Your task to perform on an android device: Show me the alarms in the clock app Image 0: 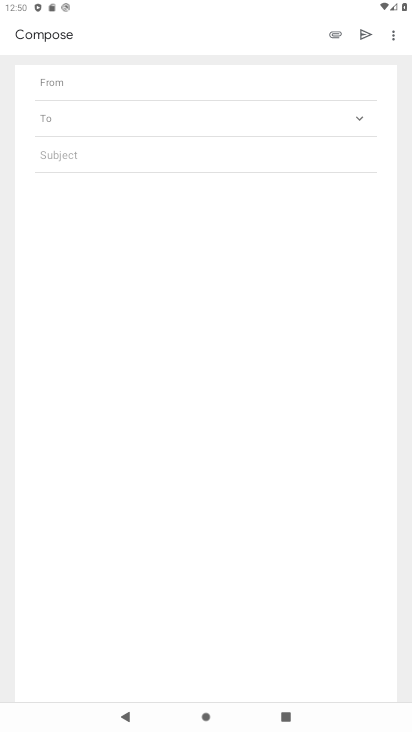
Step 0: drag from (0, 0) to (351, 647)
Your task to perform on an android device: Show me the alarms in the clock app Image 1: 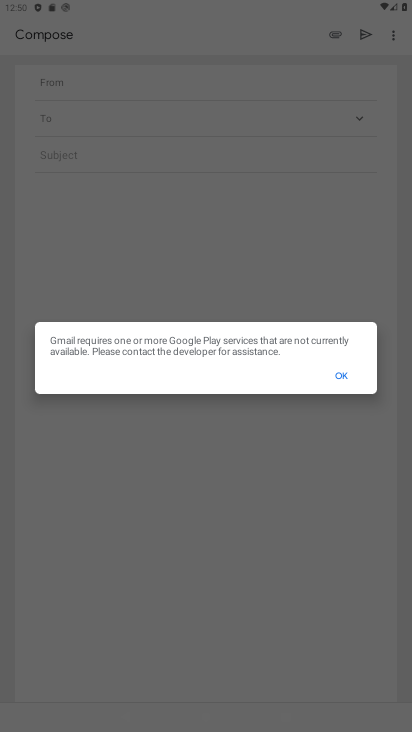
Step 1: drag from (220, 667) to (288, 347)
Your task to perform on an android device: Show me the alarms in the clock app Image 2: 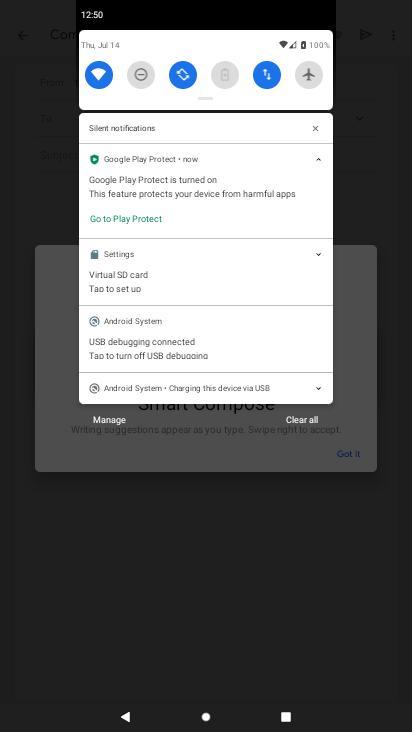
Step 2: press home button
Your task to perform on an android device: Show me the alarms in the clock app Image 3: 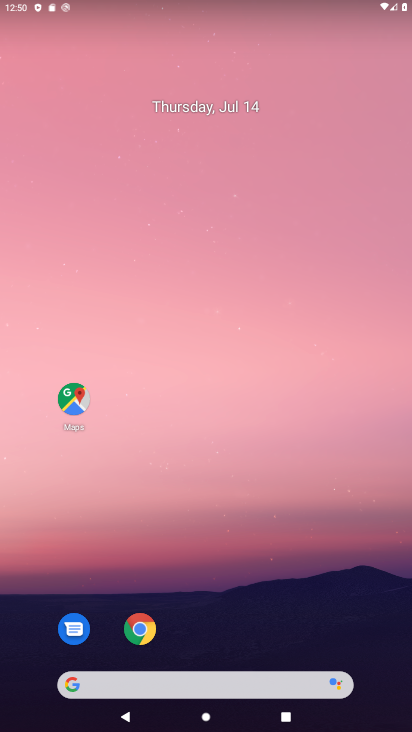
Step 3: drag from (184, 674) to (258, 234)
Your task to perform on an android device: Show me the alarms in the clock app Image 4: 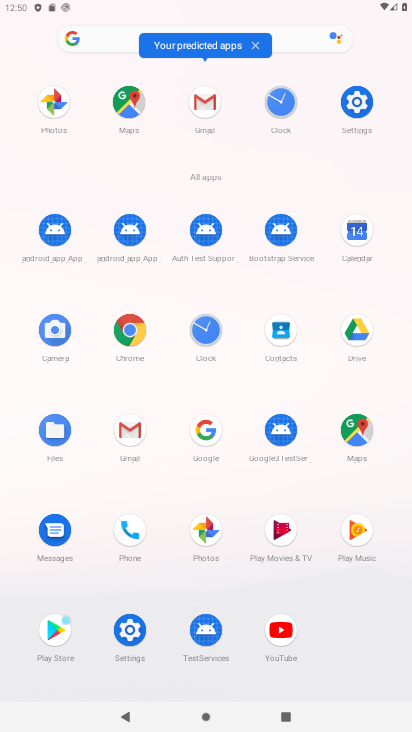
Step 4: drag from (235, 617) to (235, 446)
Your task to perform on an android device: Show me the alarms in the clock app Image 5: 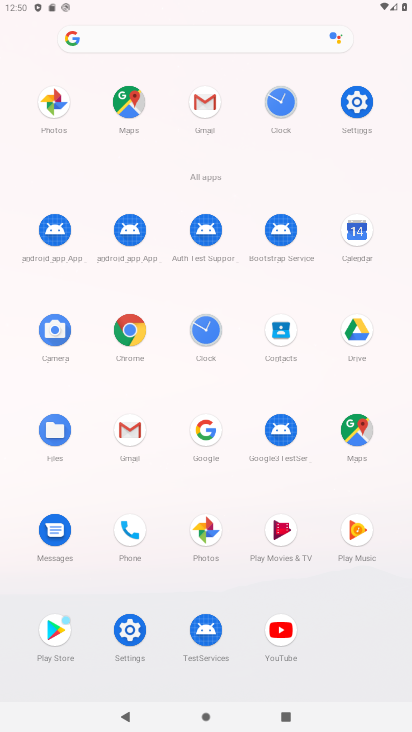
Step 5: drag from (172, 543) to (188, 318)
Your task to perform on an android device: Show me the alarms in the clock app Image 6: 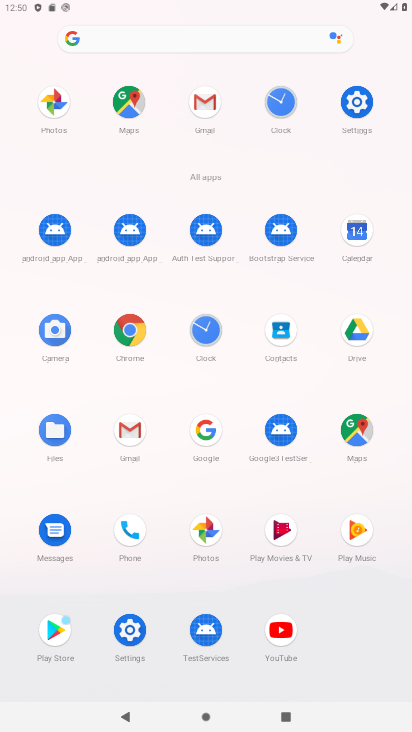
Step 6: drag from (182, 509) to (210, 443)
Your task to perform on an android device: Show me the alarms in the clock app Image 7: 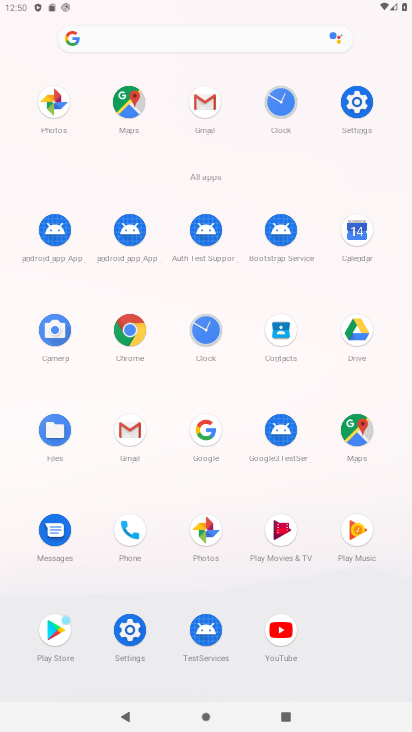
Step 7: drag from (241, 658) to (253, 433)
Your task to perform on an android device: Show me the alarms in the clock app Image 8: 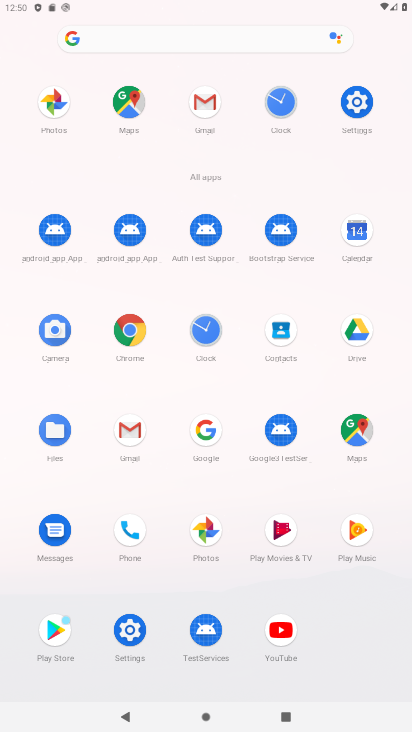
Step 8: click (200, 333)
Your task to perform on an android device: Show me the alarms in the clock app Image 9: 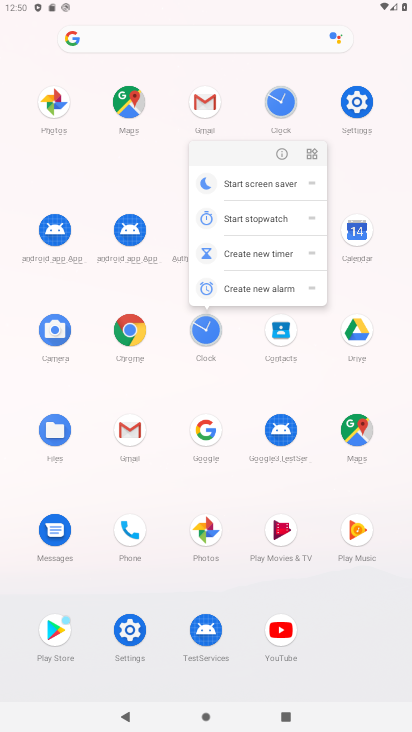
Step 9: click (284, 152)
Your task to perform on an android device: Show me the alarms in the clock app Image 10: 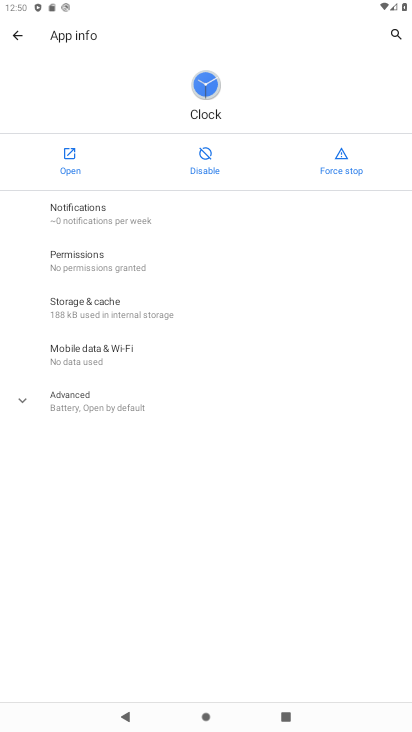
Step 10: click (70, 164)
Your task to perform on an android device: Show me the alarms in the clock app Image 11: 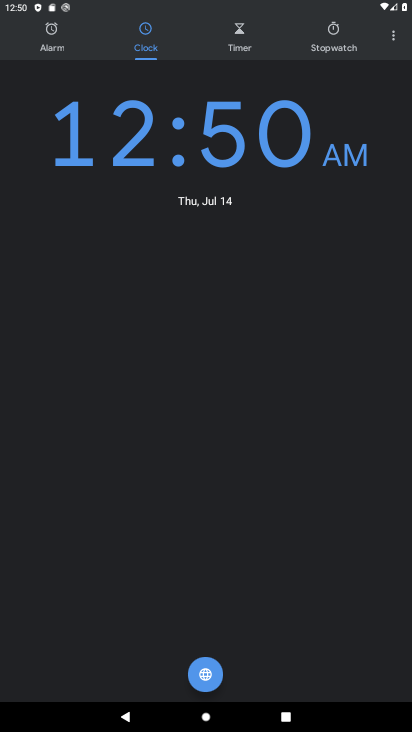
Step 11: drag from (293, 560) to (260, 189)
Your task to perform on an android device: Show me the alarms in the clock app Image 12: 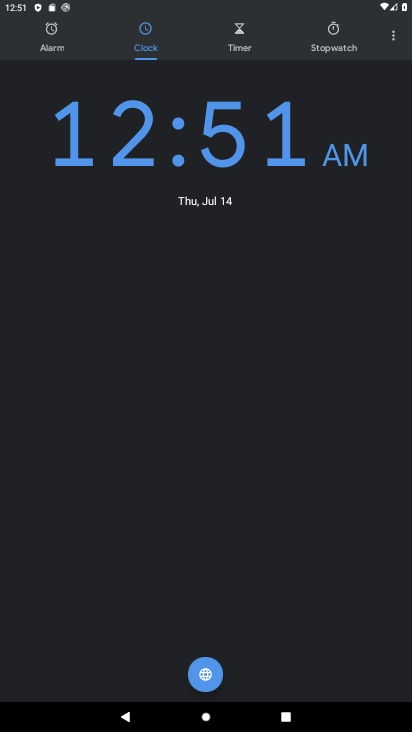
Step 12: click (327, 54)
Your task to perform on an android device: Show me the alarms in the clock app Image 13: 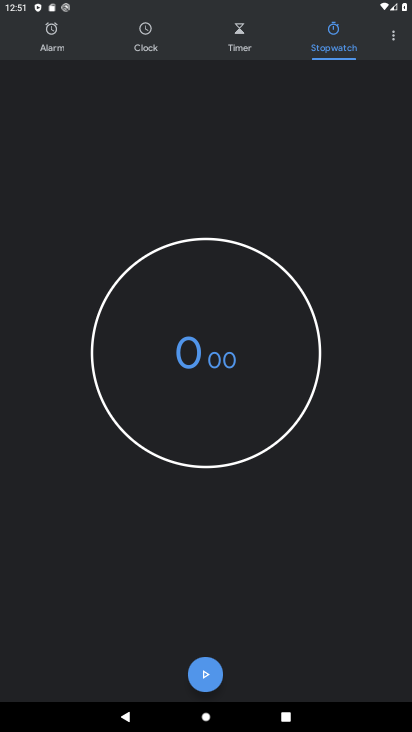
Step 13: drag from (274, 478) to (274, 255)
Your task to perform on an android device: Show me the alarms in the clock app Image 14: 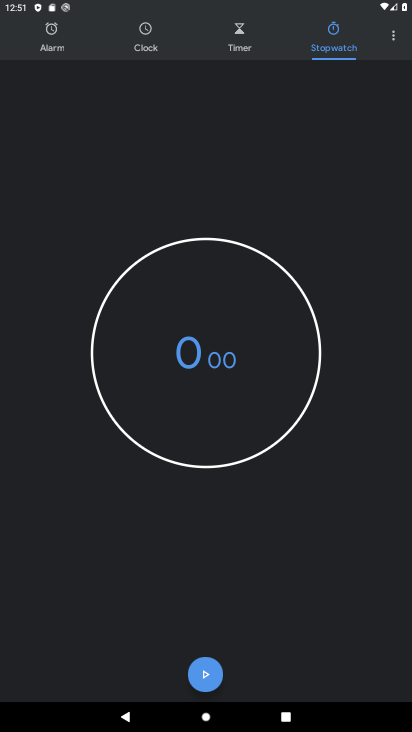
Step 14: drag from (270, 482) to (261, 349)
Your task to perform on an android device: Show me the alarms in the clock app Image 15: 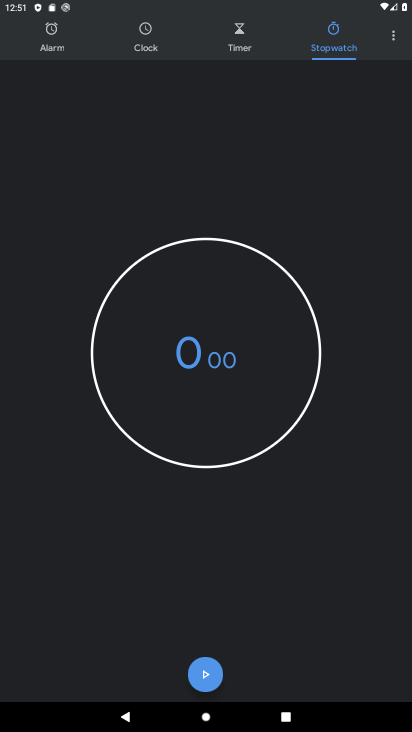
Step 15: drag from (238, 581) to (244, 469)
Your task to perform on an android device: Show me the alarms in the clock app Image 16: 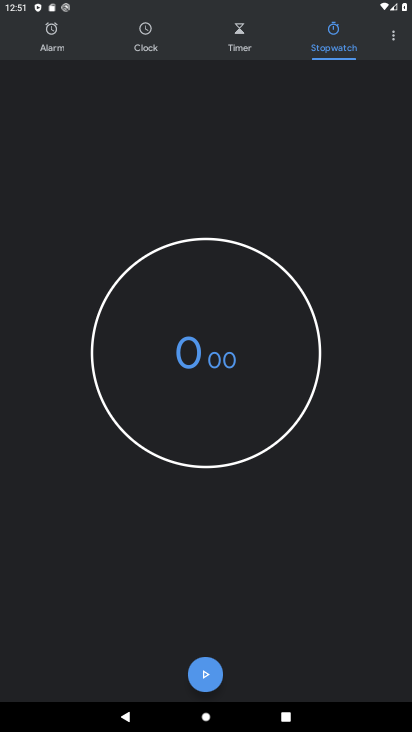
Step 16: drag from (314, 372) to (311, 263)
Your task to perform on an android device: Show me the alarms in the clock app Image 17: 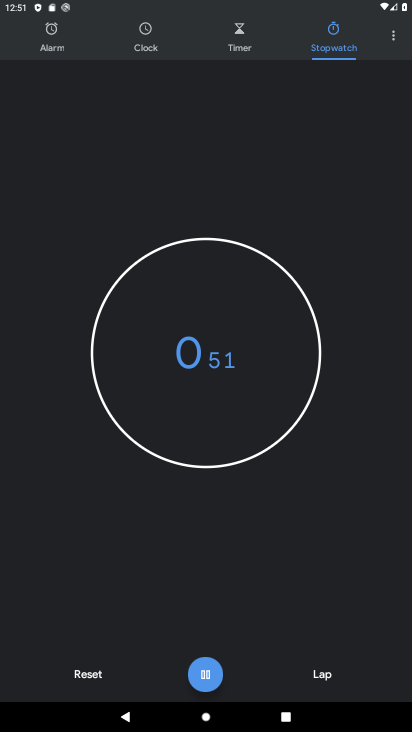
Step 17: drag from (297, 151) to (263, 530)
Your task to perform on an android device: Show me the alarms in the clock app Image 18: 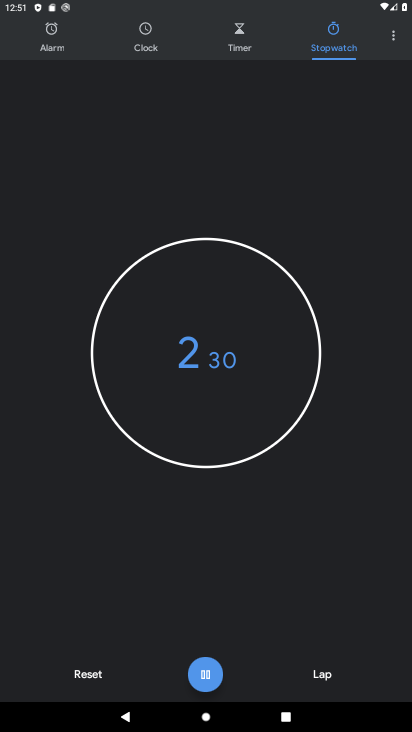
Step 18: click (89, 682)
Your task to perform on an android device: Show me the alarms in the clock app Image 19: 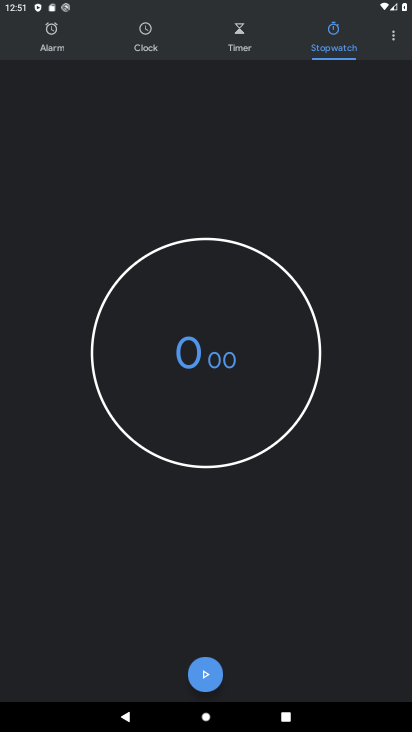
Step 19: drag from (391, 528) to (399, 229)
Your task to perform on an android device: Show me the alarms in the clock app Image 20: 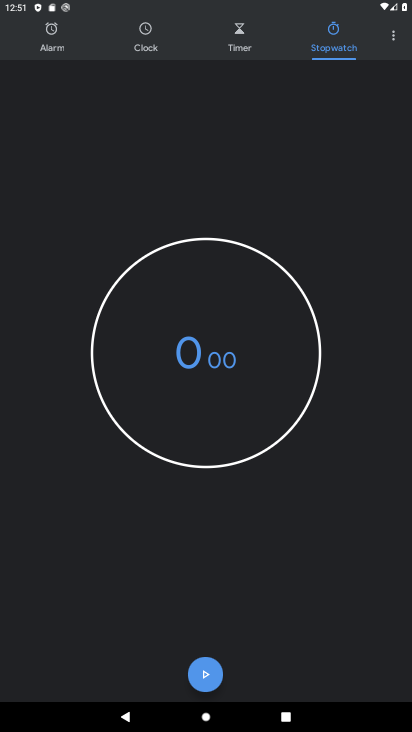
Step 20: drag from (327, 408) to (327, 212)
Your task to perform on an android device: Show me the alarms in the clock app Image 21: 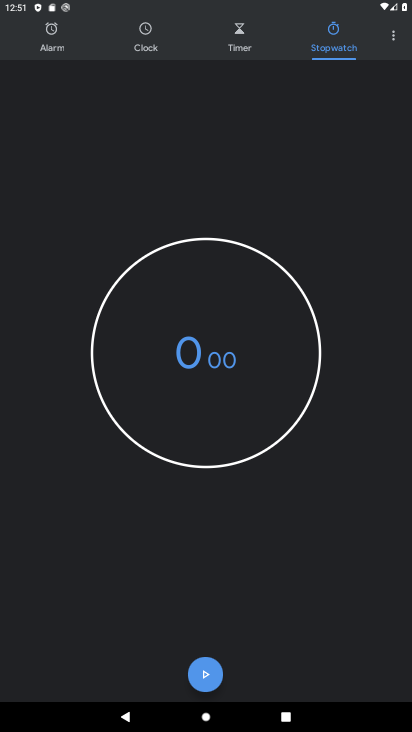
Step 21: drag from (305, 210) to (309, 500)
Your task to perform on an android device: Show me the alarms in the clock app Image 22: 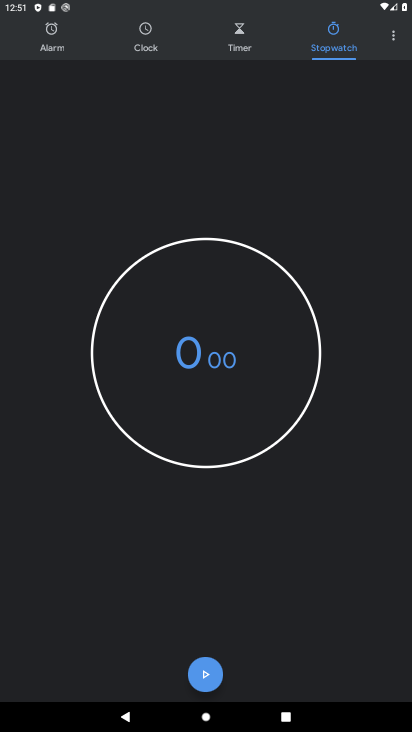
Step 22: click (317, 572)
Your task to perform on an android device: Show me the alarms in the clock app Image 23: 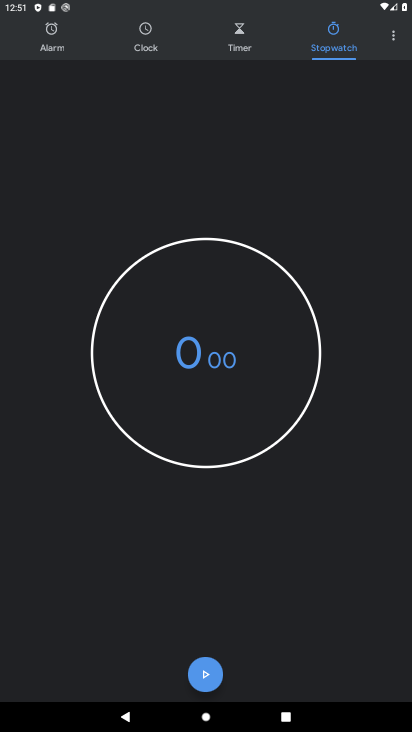
Step 23: click (336, 236)
Your task to perform on an android device: Show me the alarms in the clock app Image 24: 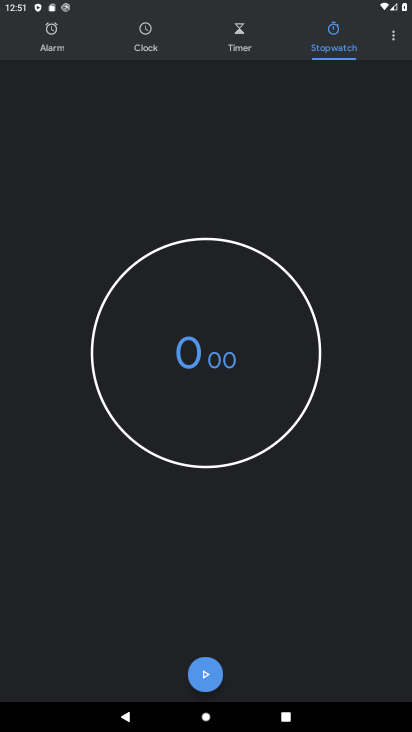
Step 24: click (343, 176)
Your task to perform on an android device: Show me the alarms in the clock app Image 25: 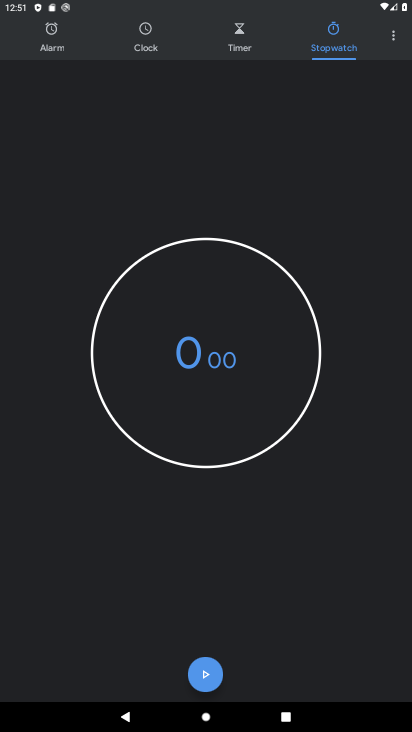
Step 25: click (302, 487)
Your task to perform on an android device: Show me the alarms in the clock app Image 26: 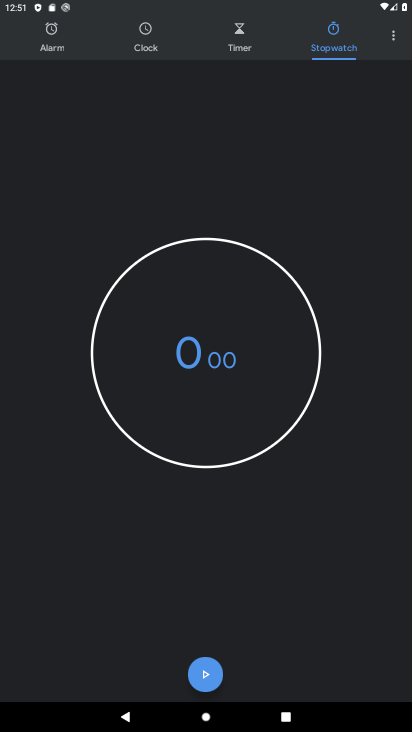
Step 26: click (391, 129)
Your task to perform on an android device: Show me the alarms in the clock app Image 27: 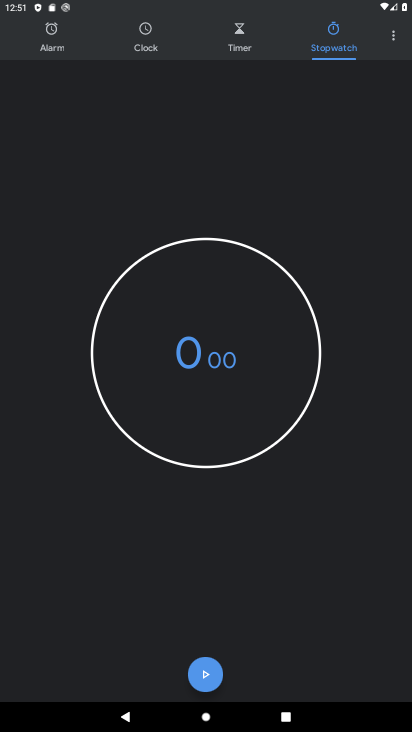
Step 27: click (298, 554)
Your task to perform on an android device: Show me the alarms in the clock app Image 28: 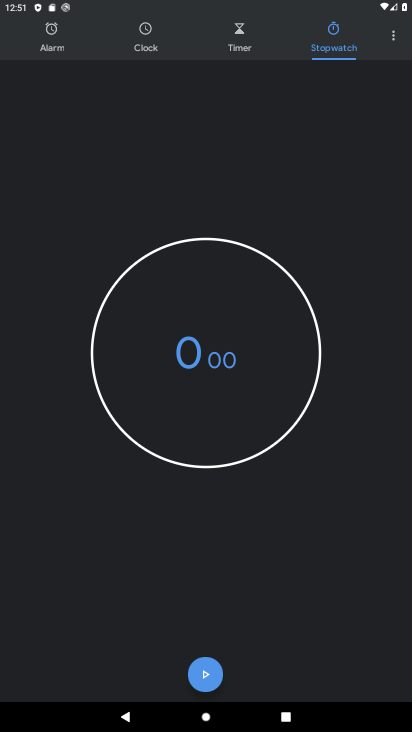
Step 28: click (345, 38)
Your task to perform on an android device: Show me the alarms in the clock app Image 29: 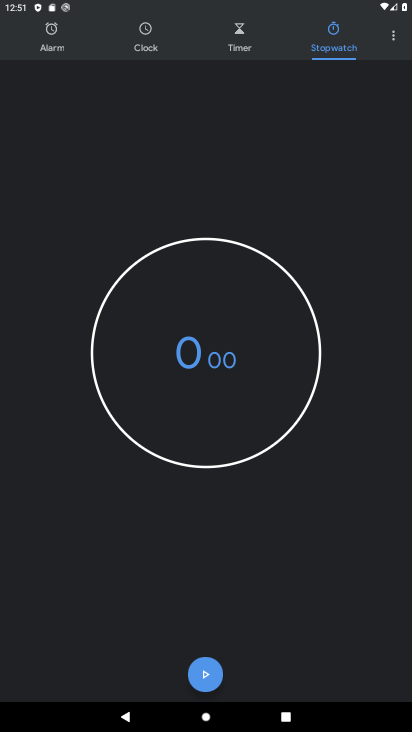
Step 29: click (283, 493)
Your task to perform on an android device: Show me the alarms in the clock app Image 30: 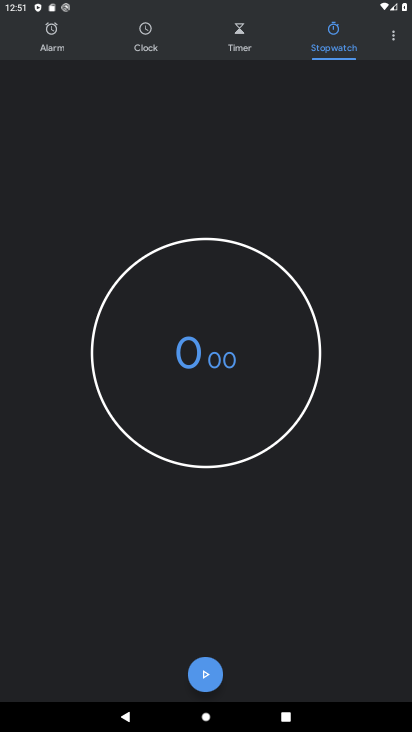
Step 30: click (309, 146)
Your task to perform on an android device: Show me the alarms in the clock app Image 31: 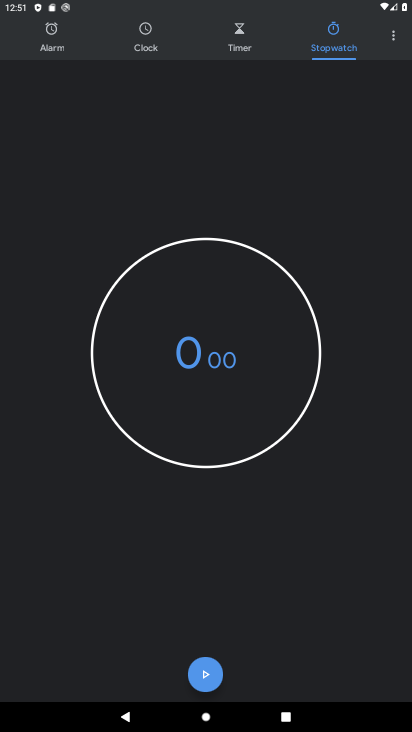
Step 31: click (291, 485)
Your task to perform on an android device: Show me the alarms in the clock app Image 32: 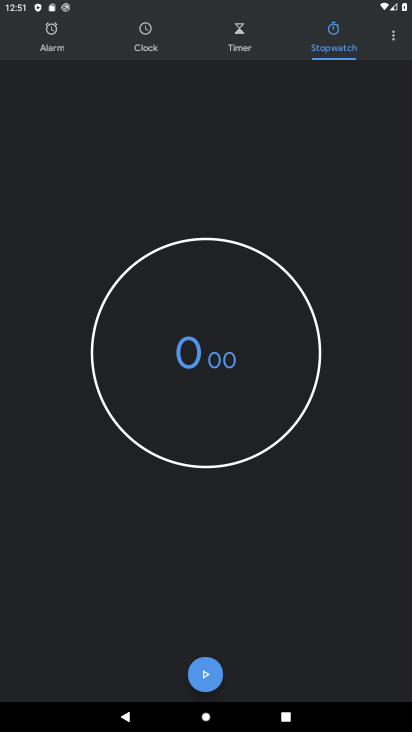
Step 32: click (52, 34)
Your task to perform on an android device: Show me the alarms in the clock app Image 33: 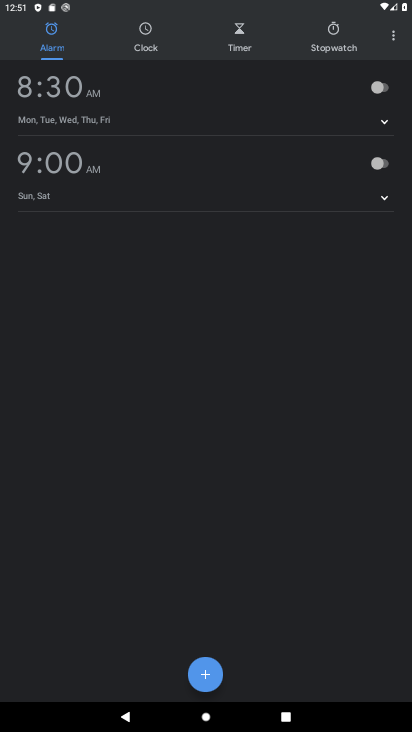
Step 33: drag from (269, 573) to (270, 422)
Your task to perform on an android device: Show me the alarms in the clock app Image 34: 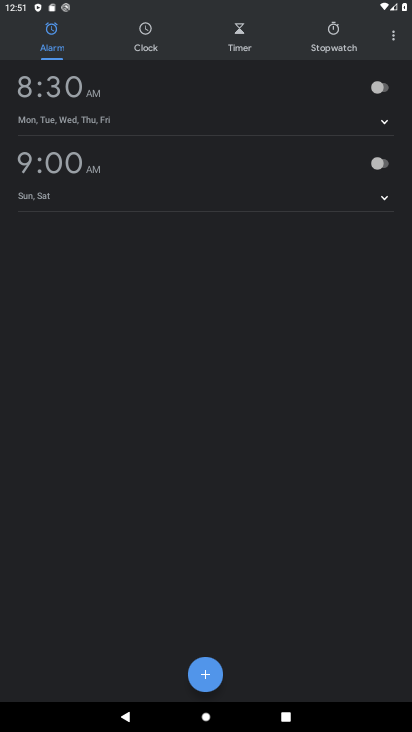
Step 34: click (342, 32)
Your task to perform on an android device: Show me the alarms in the clock app Image 35: 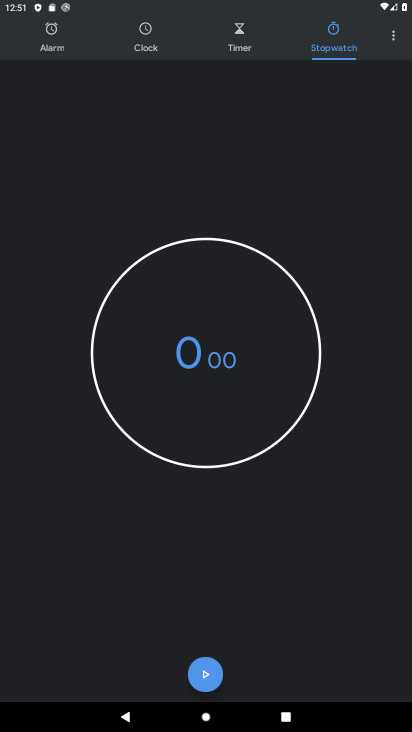
Step 35: drag from (357, 198) to (257, 55)
Your task to perform on an android device: Show me the alarms in the clock app Image 36: 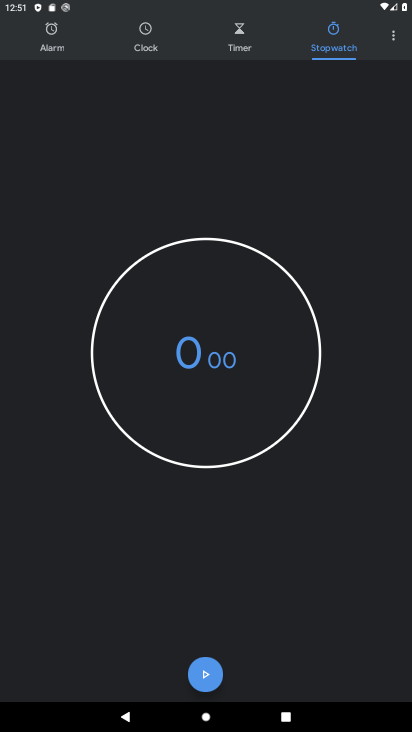
Step 36: click (236, 30)
Your task to perform on an android device: Show me the alarms in the clock app Image 37: 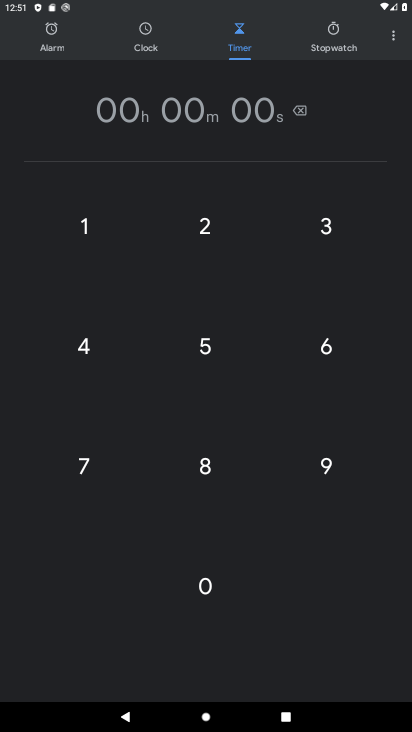
Step 37: click (311, 38)
Your task to perform on an android device: Show me the alarms in the clock app Image 38: 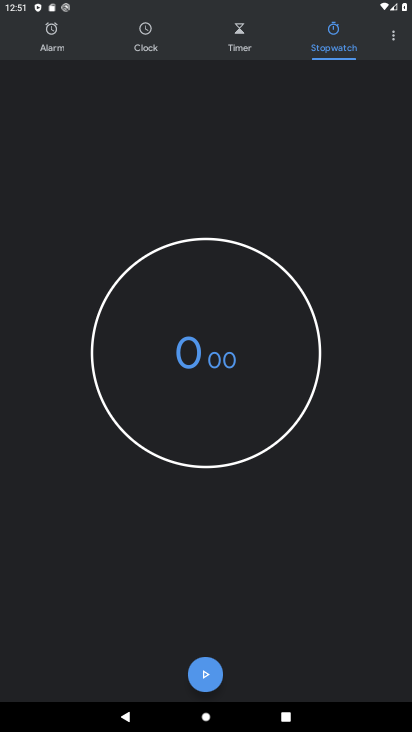
Step 38: drag from (338, 585) to (288, 305)
Your task to perform on an android device: Show me the alarms in the clock app Image 39: 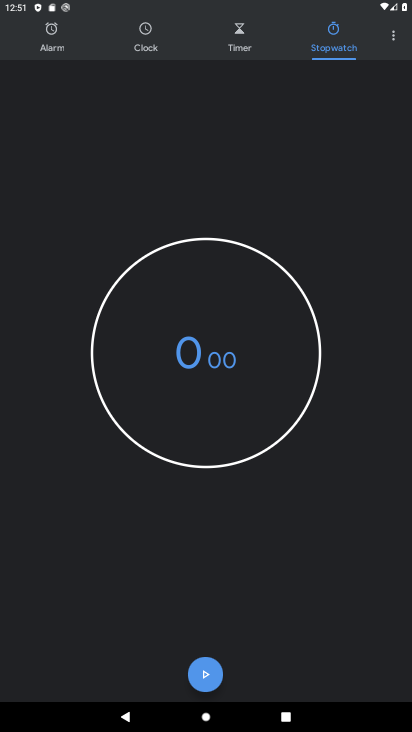
Step 39: click (271, 153)
Your task to perform on an android device: Show me the alarms in the clock app Image 40: 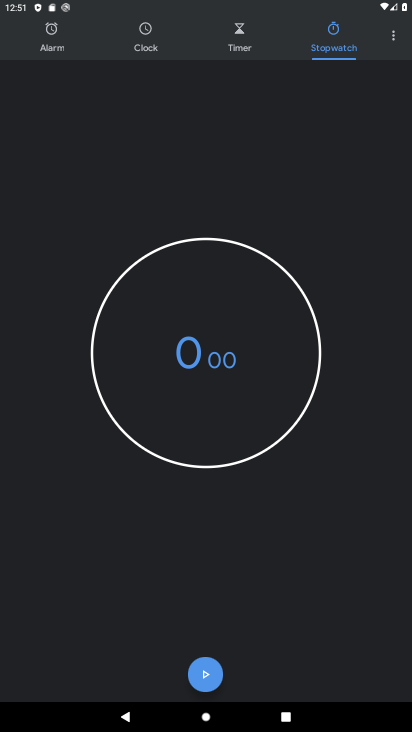
Step 40: click (239, 45)
Your task to perform on an android device: Show me the alarms in the clock app Image 41: 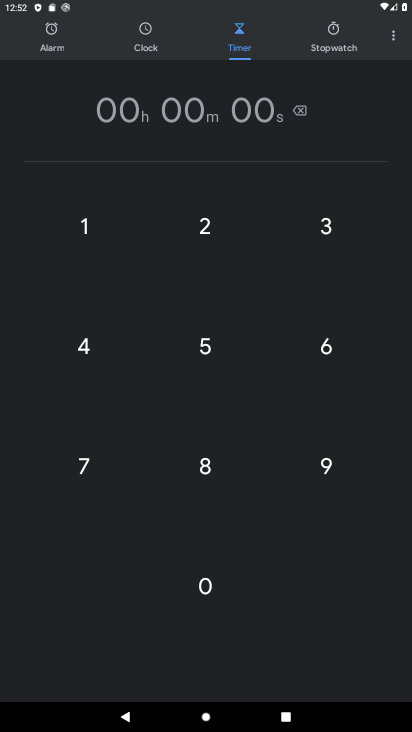
Step 41: click (332, 50)
Your task to perform on an android device: Show me the alarms in the clock app Image 42: 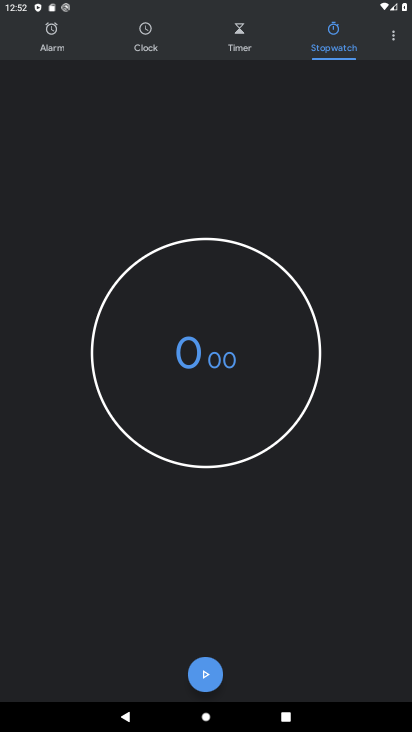
Step 42: drag from (307, 633) to (304, 350)
Your task to perform on an android device: Show me the alarms in the clock app Image 43: 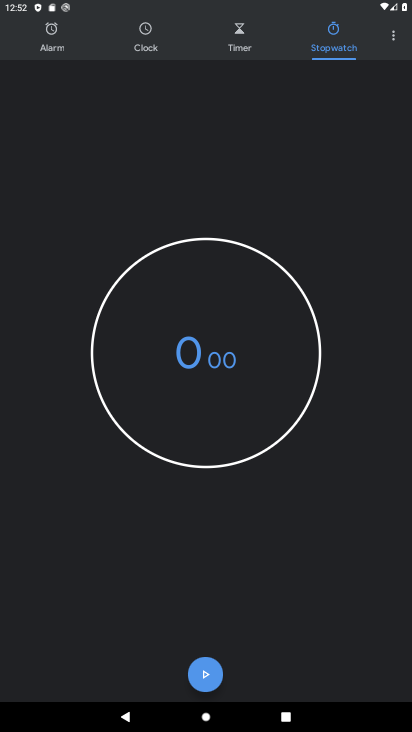
Step 43: drag from (210, 588) to (228, 473)
Your task to perform on an android device: Show me the alarms in the clock app Image 44: 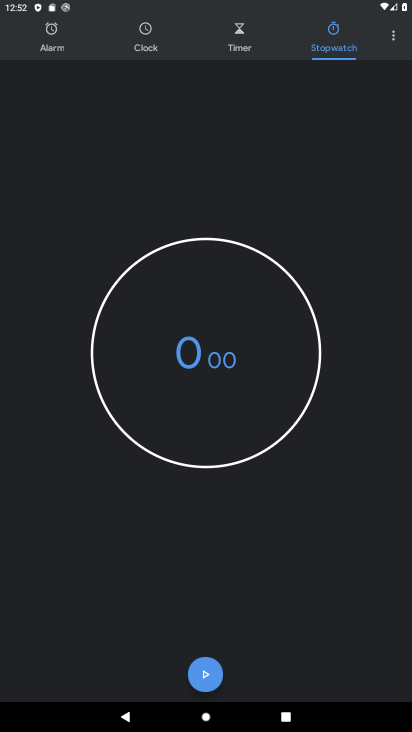
Step 44: click (239, 62)
Your task to perform on an android device: Show me the alarms in the clock app Image 45: 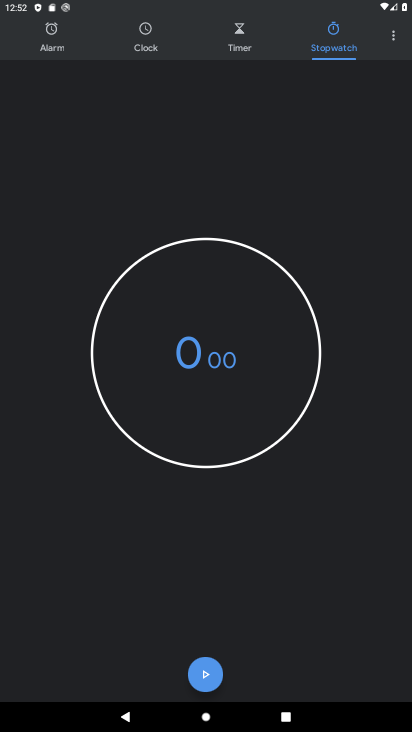
Step 45: click (251, 52)
Your task to perform on an android device: Show me the alarms in the clock app Image 46: 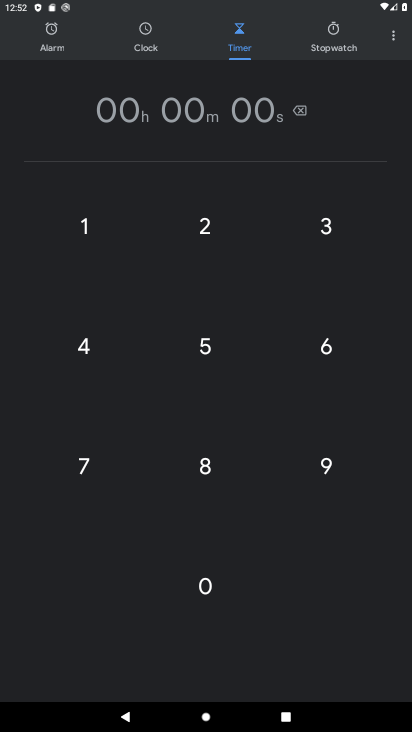
Step 46: drag from (200, 585) to (241, 260)
Your task to perform on an android device: Show me the alarms in the clock app Image 47: 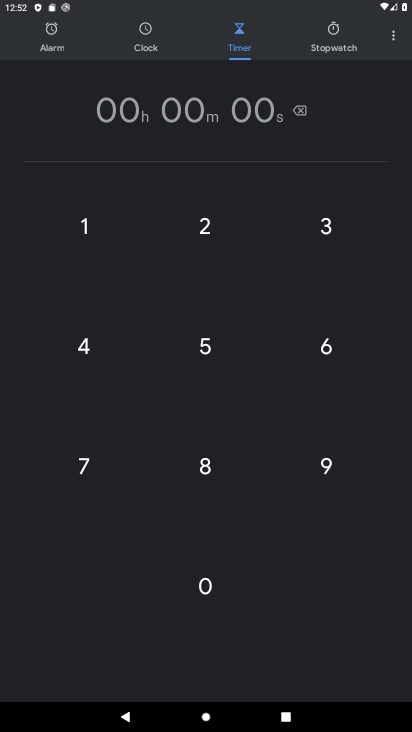
Step 47: click (37, 27)
Your task to perform on an android device: Show me the alarms in the clock app Image 48: 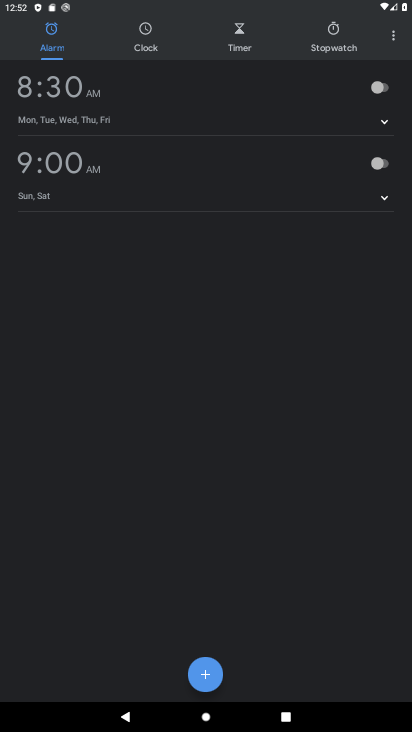
Step 48: task complete